Your task to perform on an android device: choose inbox layout in the gmail app Image 0: 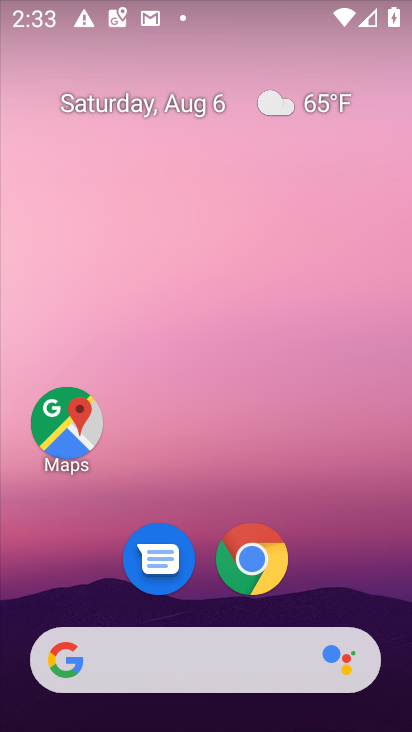
Step 0: drag from (191, 507) to (190, 136)
Your task to perform on an android device: choose inbox layout in the gmail app Image 1: 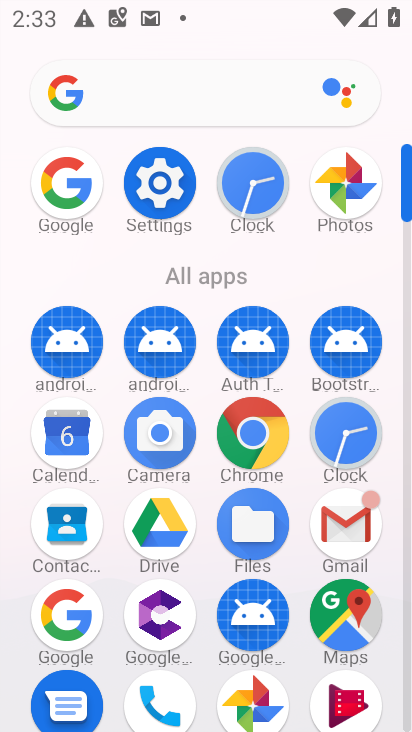
Step 1: click (325, 506)
Your task to perform on an android device: choose inbox layout in the gmail app Image 2: 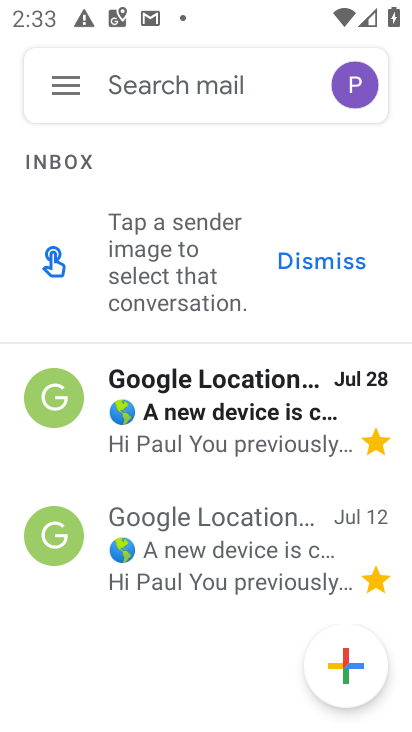
Step 2: click (65, 76)
Your task to perform on an android device: choose inbox layout in the gmail app Image 3: 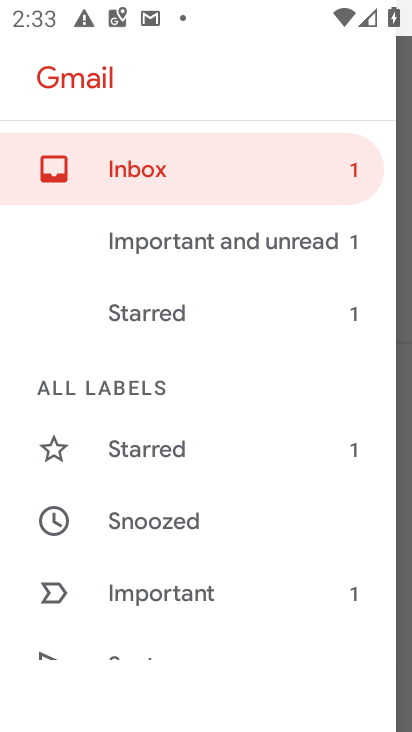
Step 3: drag from (185, 595) to (193, 314)
Your task to perform on an android device: choose inbox layout in the gmail app Image 4: 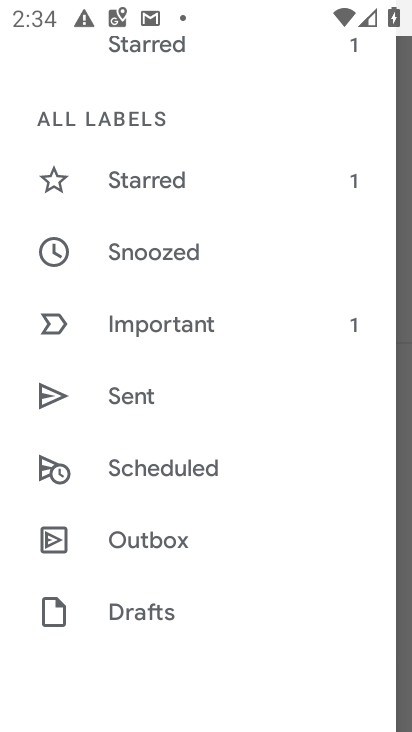
Step 4: click (217, 255)
Your task to perform on an android device: choose inbox layout in the gmail app Image 5: 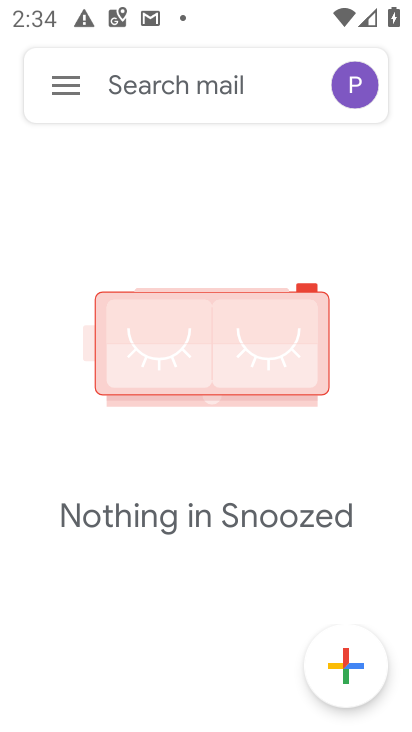
Step 5: click (73, 87)
Your task to perform on an android device: choose inbox layout in the gmail app Image 6: 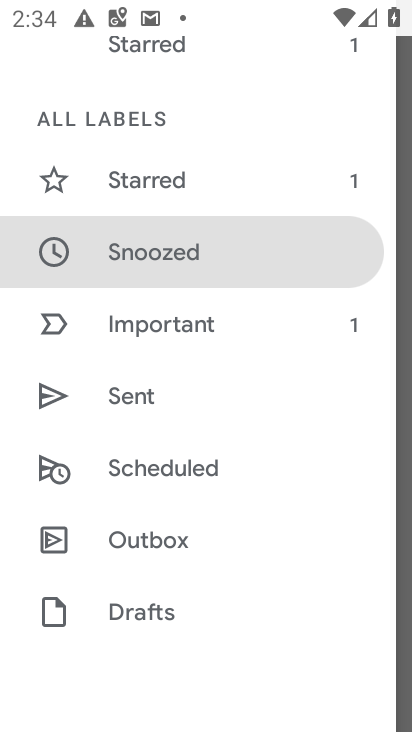
Step 6: drag from (228, 537) to (228, 225)
Your task to perform on an android device: choose inbox layout in the gmail app Image 7: 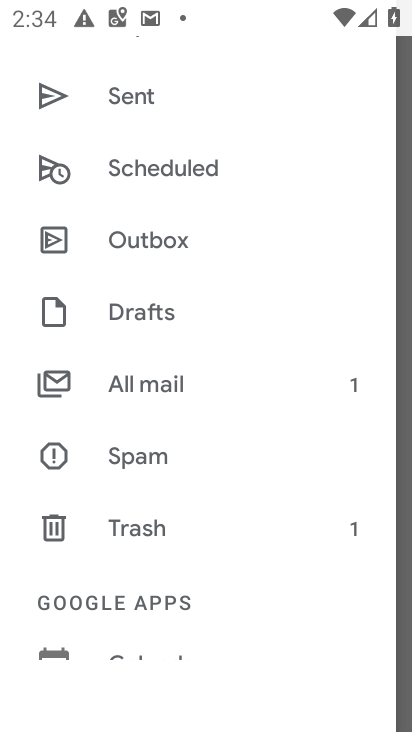
Step 7: drag from (207, 632) to (210, 283)
Your task to perform on an android device: choose inbox layout in the gmail app Image 8: 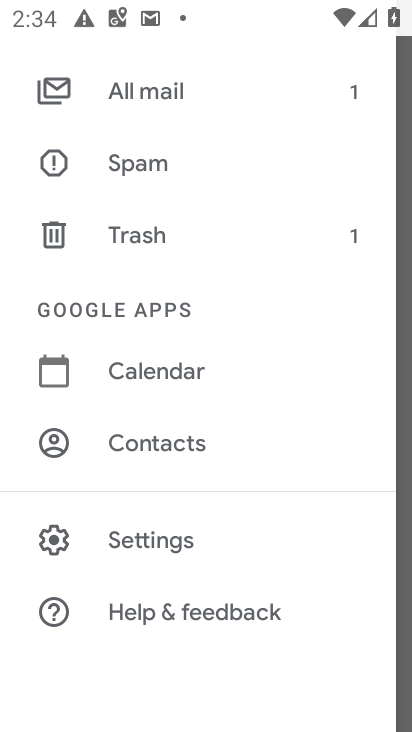
Step 8: click (201, 547)
Your task to perform on an android device: choose inbox layout in the gmail app Image 9: 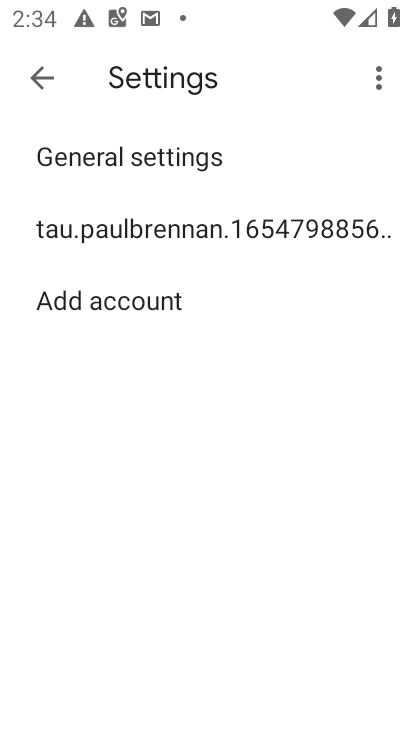
Step 9: click (95, 225)
Your task to perform on an android device: choose inbox layout in the gmail app Image 10: 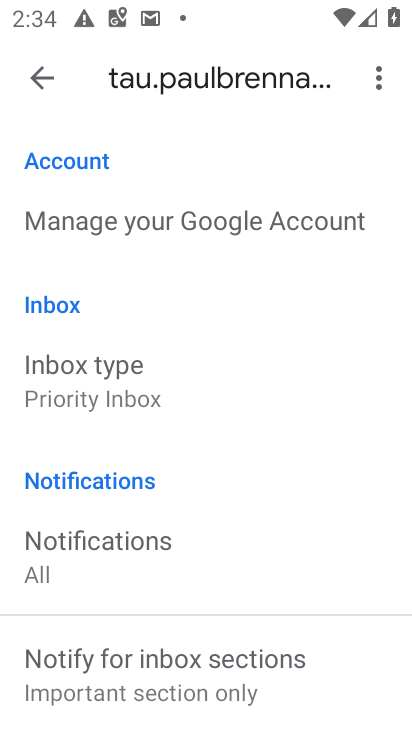
Step 10: click (114, 390)
Your task to perform on an android device: choose inbox layout in the gmail app Image 11: 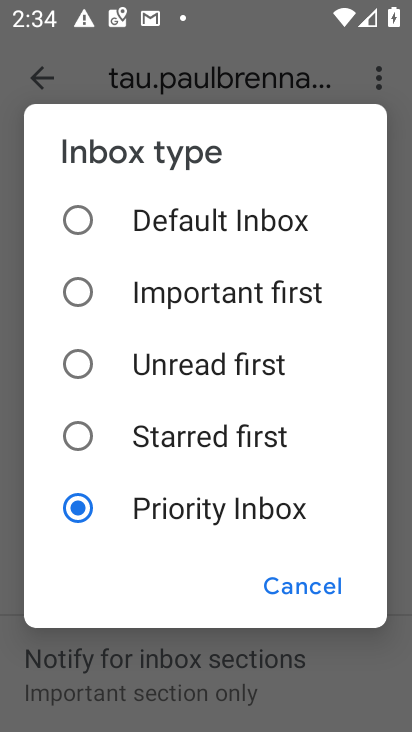
Step 11: click (120, 239)
Your task to perform on an android device: choose inbox layout in the gmail app Image 12: 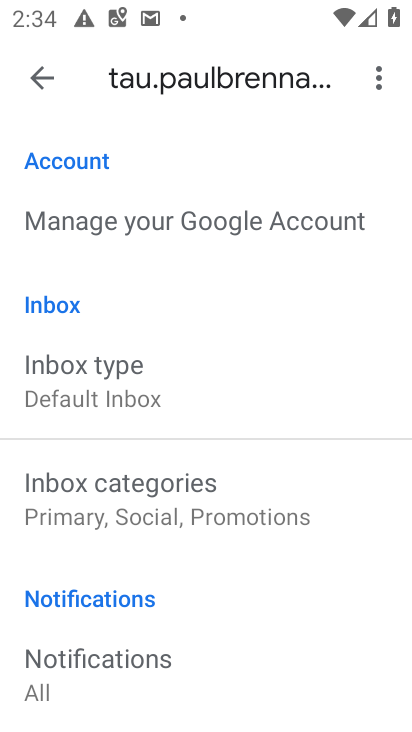
Step 12: click (147, 358)
Your task to perform on an android device: choose inbox layout in the gmail app Image 13: 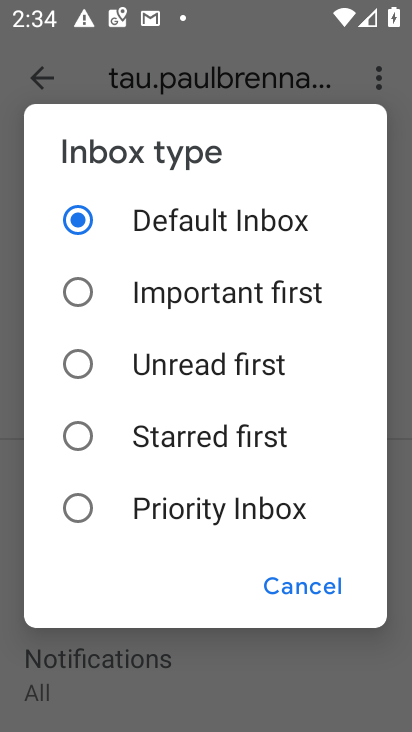
Step 13: click (123, 501)
Your task to perform on an android device: choose inbox layout in the gmail app Image 14: 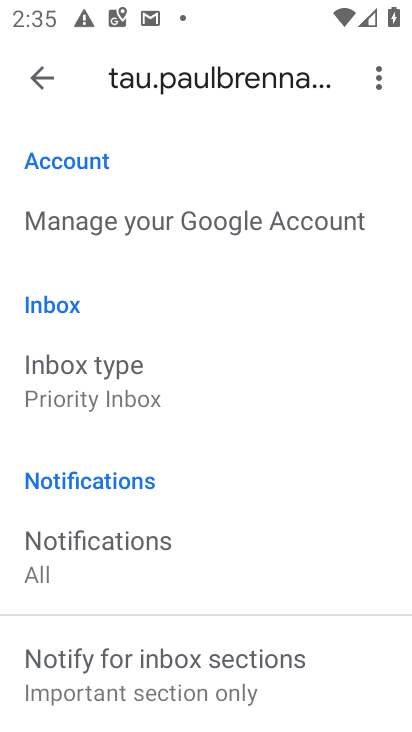
Step 14: click (137, 376)
Your task to perform on an android device: choose inbox layout in the gmail app Image 15: 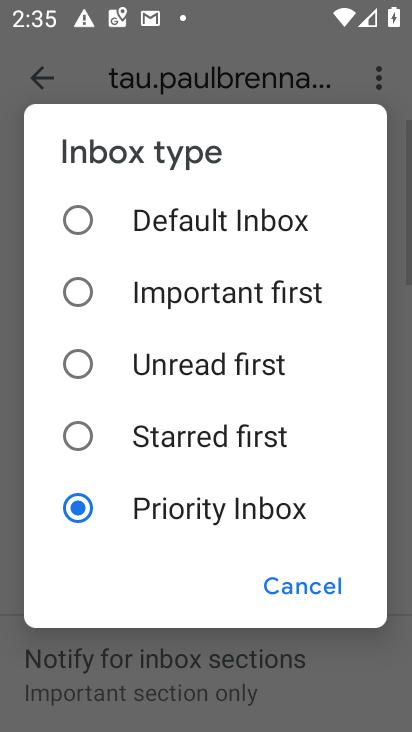
Step 15: click (171, 439)
Your task to perform on an android device: choose inbox layout in the gmail app Image 16: 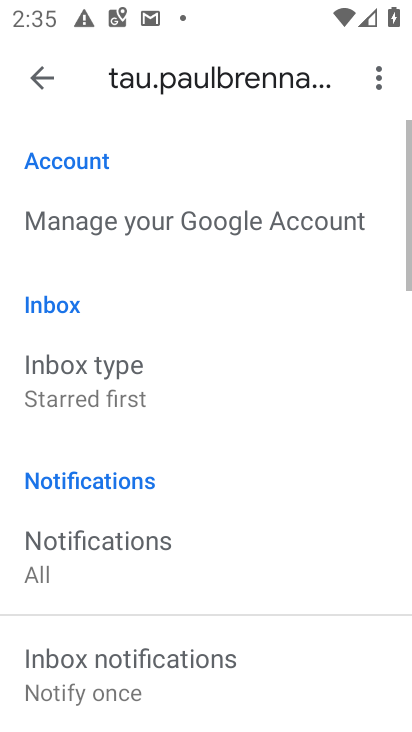
Step 16: task complete